Your task to perform on an android device: Open location settings Image 0: 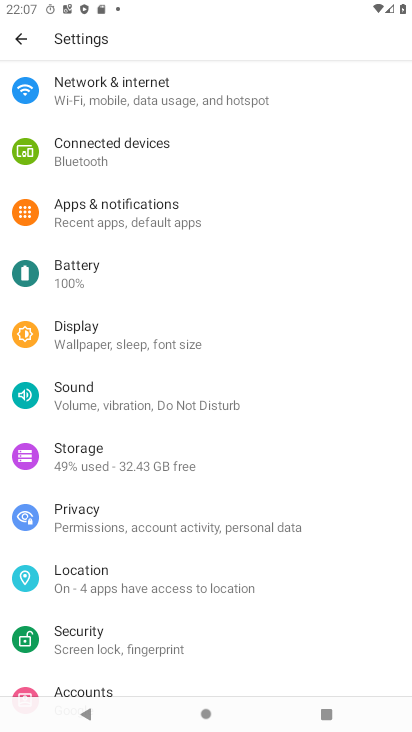
Step 0: press home button
Your task to perform on an android device: Open location settings Image 1: 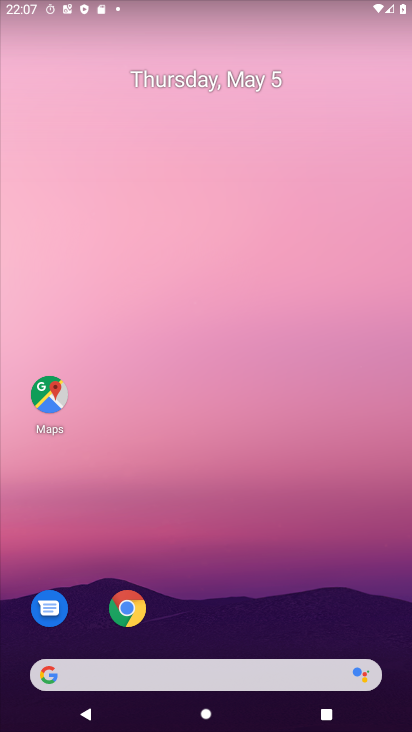
Step 1: drag from (321, 678) to (355, 81)
Your task to perform on an android device: Open location settings Image 2: 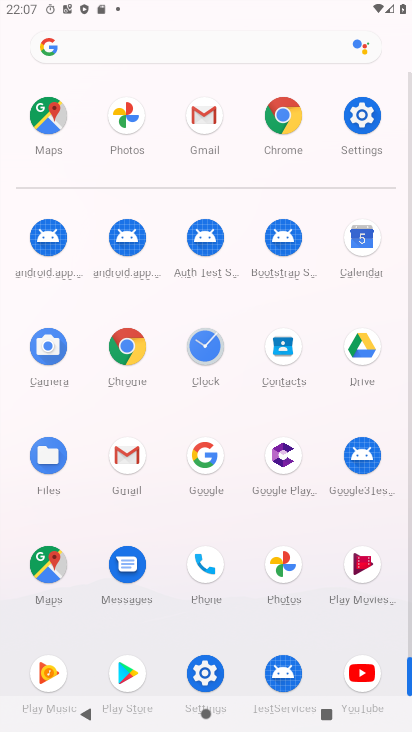
Step 2: click (359, 122)
Your task to perform on an android device: Open location settings Image 3: 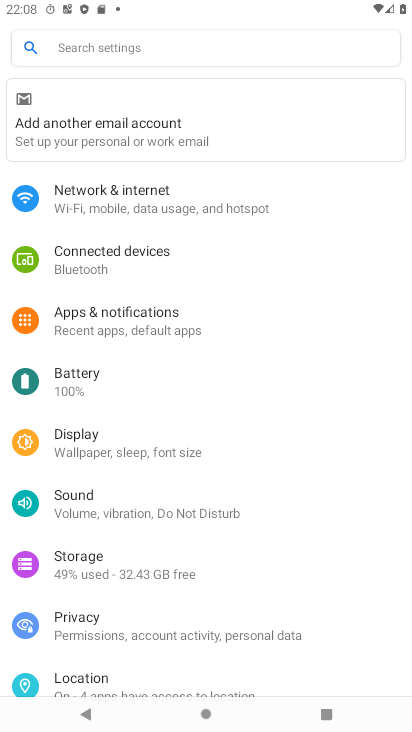
Step 3: drag from (216, 235) to (271, 686)
Your task to perform on an android device: Open location settings Image 4: 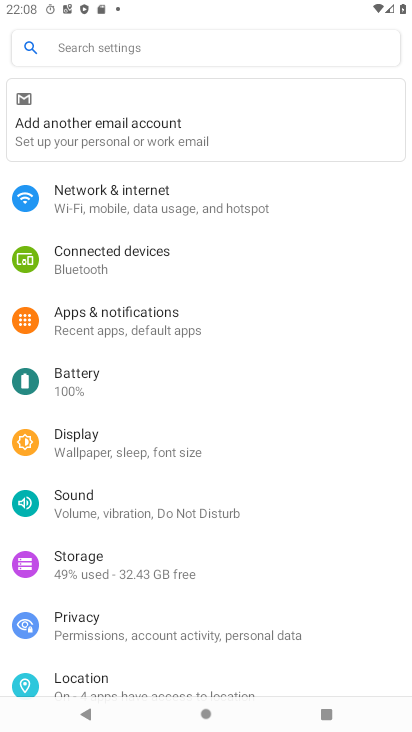
Step 4: click (130, 683)
Your task to perform on an android device: Open location settings Image 5: 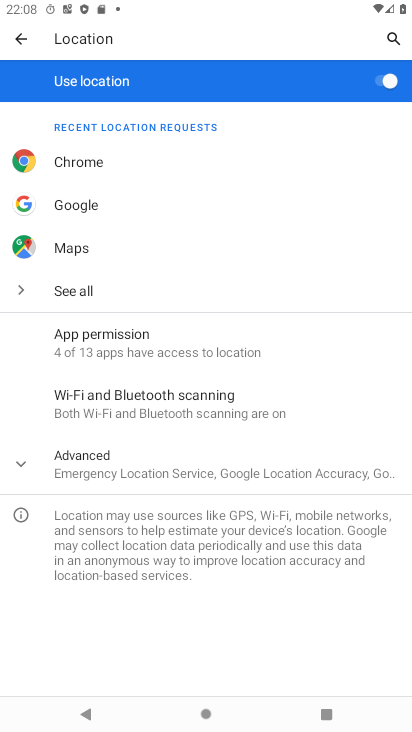
Step 5: task complete